Your task to perform on an android device: turn on airplane mode Image 0: 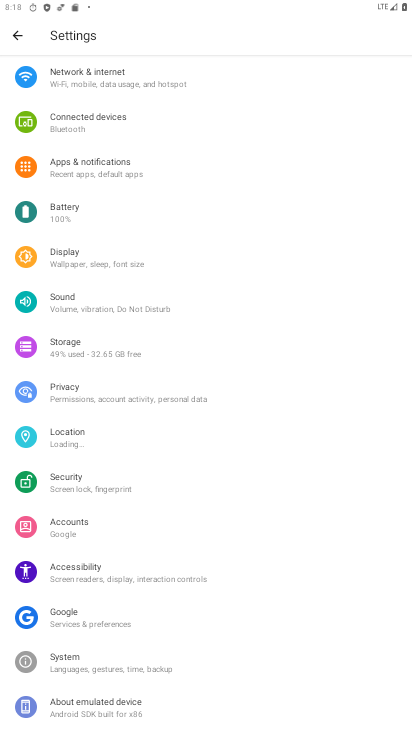
Step 0: press home button
Your task to perform on an android device: turn on airplane mode Image 1: 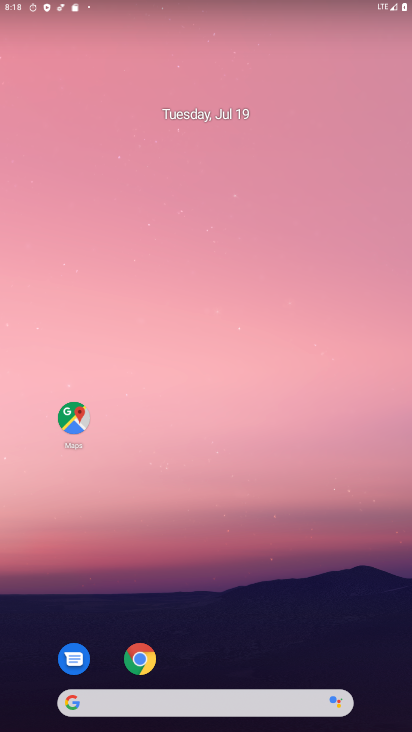
Step 1: drag from (390, 3) to (172, 730)
Your task to perform on an android device: turn on airplane mode Image 2: 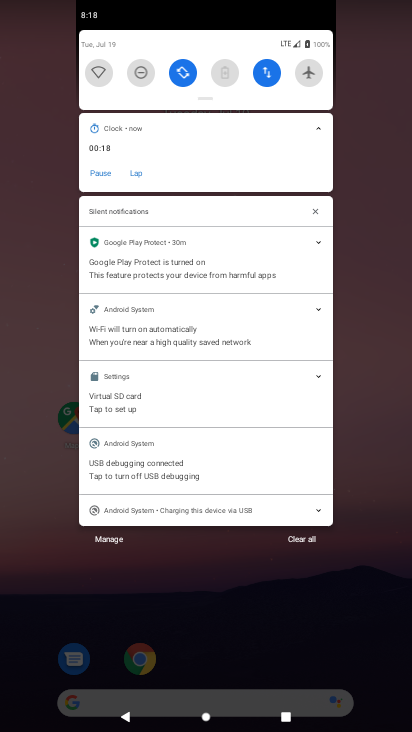
Step 2: click (308, 77)
Your task to perform on an android device: turn on airplane mode Image 3: 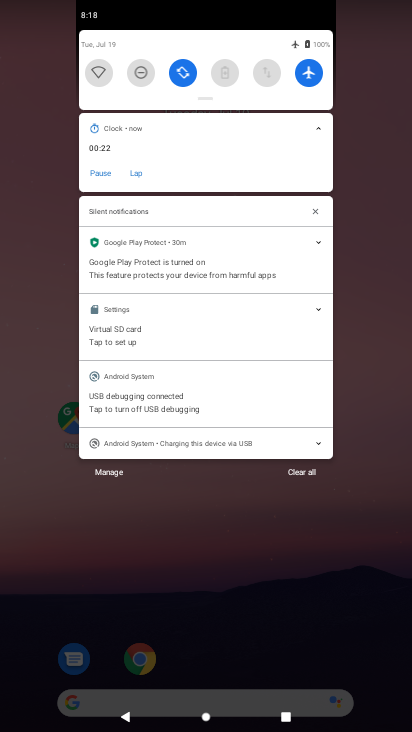
Step 3: task complete